Your task to perform on an android device: Go to ESPN.com Image 0: 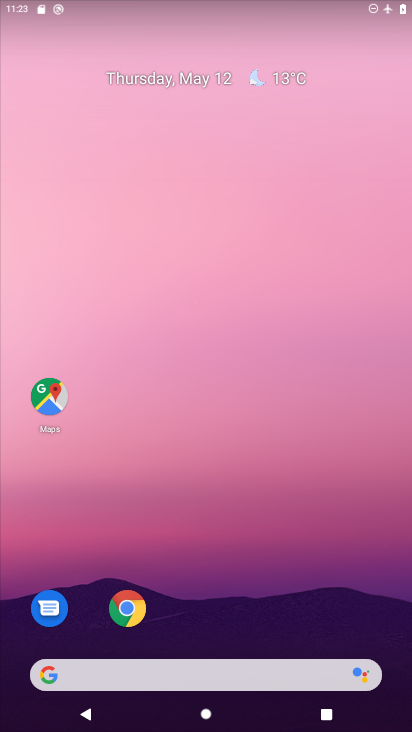
Step 0: drag from (233, 613) to (174, 150)
Your task to perform on an android device: Go to ESPN.com Image 1: 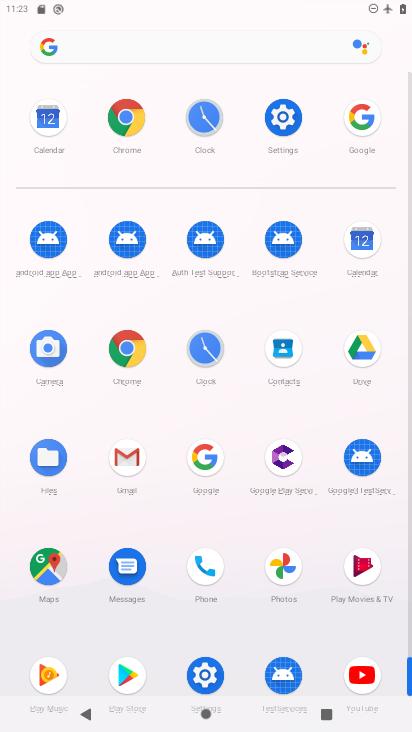
Step 1: click (198, 462)
Your task to perform on an android device: Go to ESPN.com Image 2: 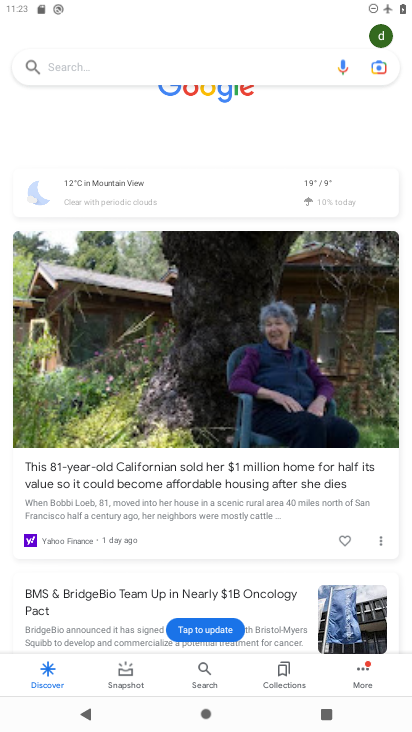
Step 2: click (180, 56)
Your task to perform on an android device: Go to ESPN.com Image 3: 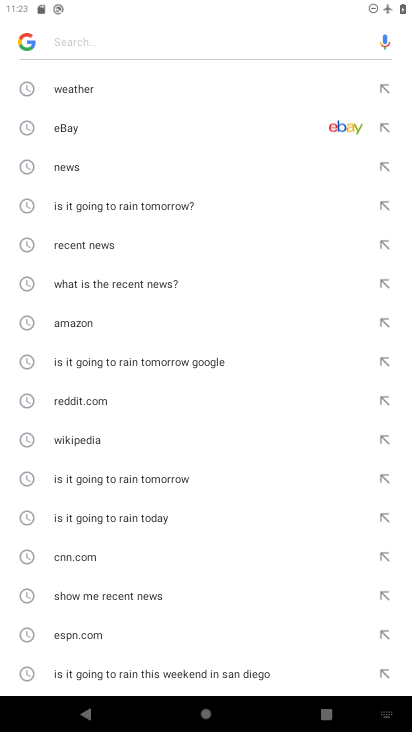
Step 3: click (103, 637)
Your task to perform on an android device: Go to ESPN.com Image 4: 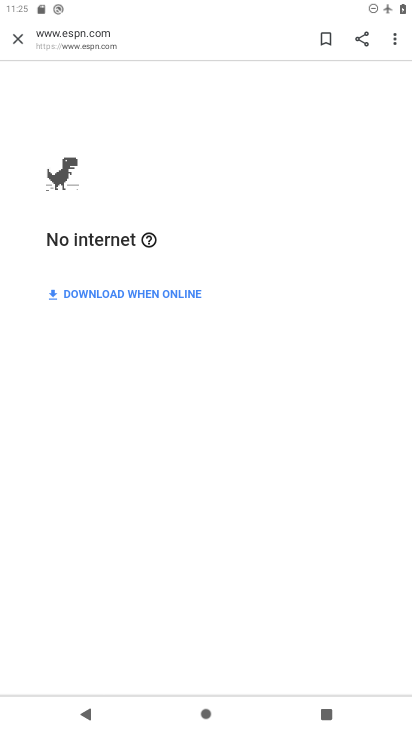
Step 4: task complete